Your task to perform on an android device: turn on improve location accuracy Image 0: 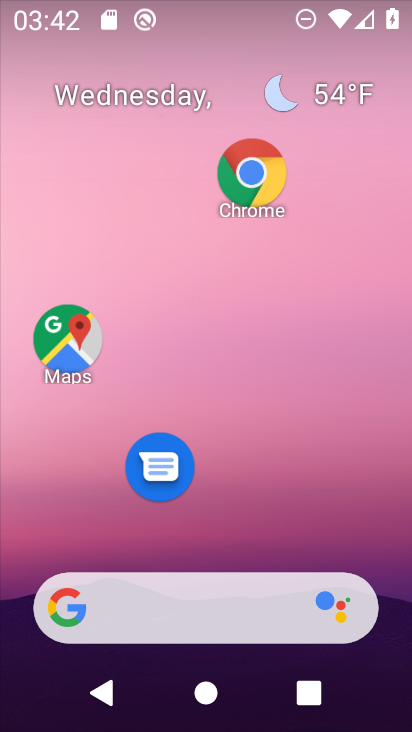
Step 0: drag from (190, 546) to (249, 160)
Your task to perform on an android device: turn on improve location accuracy Image 1: 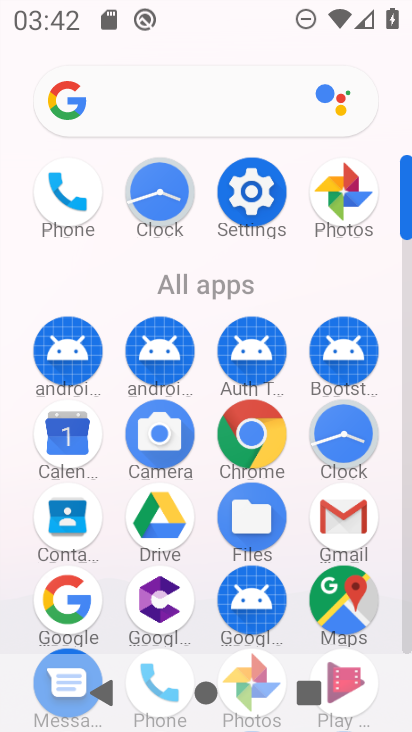
Step 1: click (258, 193)
Your task to perform on an android device: turn on improve location accuracy Image 2: 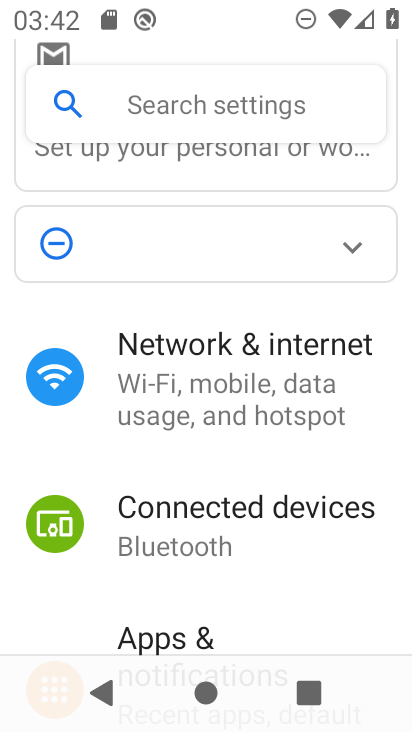
Step 2: drag from (209, 607) to (262, 155)
Your task to perform on an android device: turn on improve location accuracy Image 3: 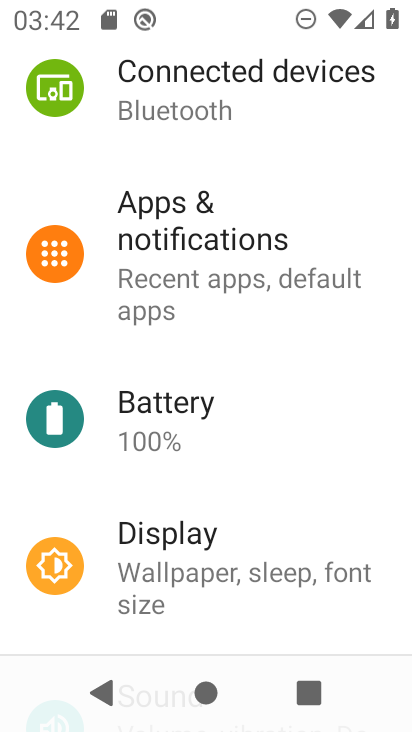
Step 3: drag from (189, 531) to (226, 101)
Your task to perform on an android device: turn on improve location accuracy Image 4: 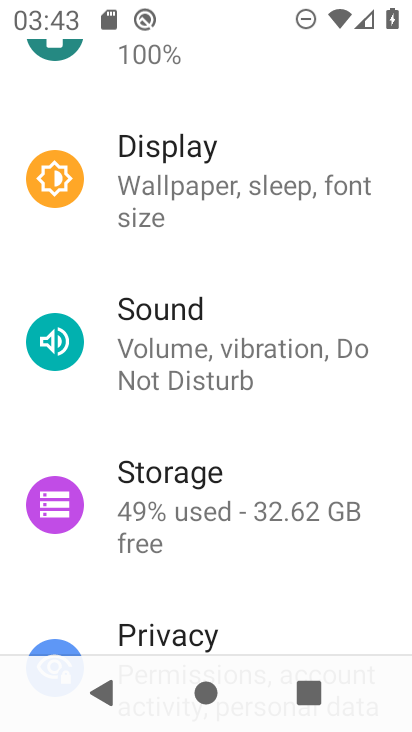
Step 4: drag from (160, 575) to (206, 247)
Your task to perform on an android device: turn on improve location accuracy Image 5: 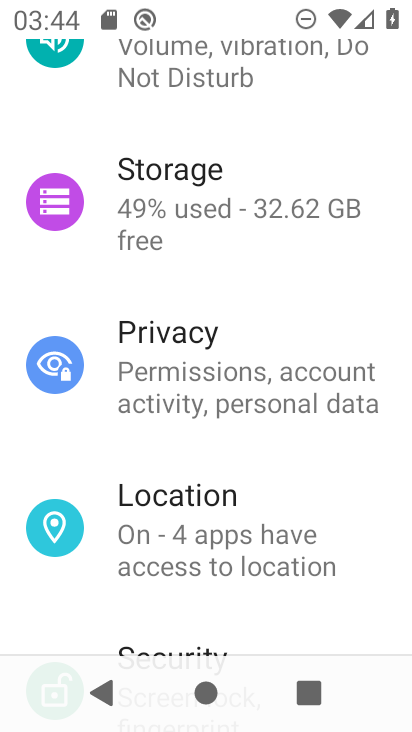
Step 5: click (190, 543)
Your task to perform on an android device: turn on improve location accuracy Image 6: 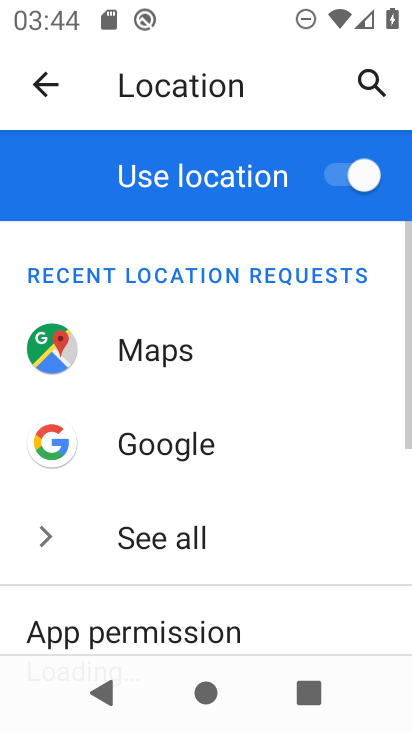
Step 6: drag from (193, 543) to (277, 50)
Your task to perform on an android device: turn on improve location accuracy Image 7: 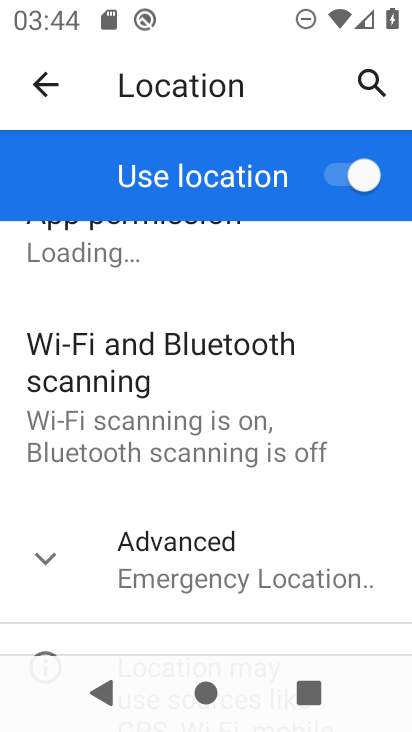
Step 7: click (172, 567)
Your task to perform on an android device: turn on improve location accuracy Image 8: 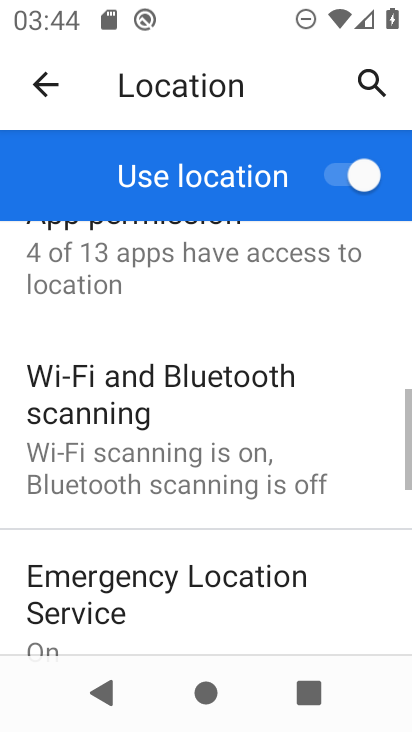
Step 8: drag from (177, 563) to (259, 97)
Your task to perform on an android device: turn on improve location accuracy Image 9: 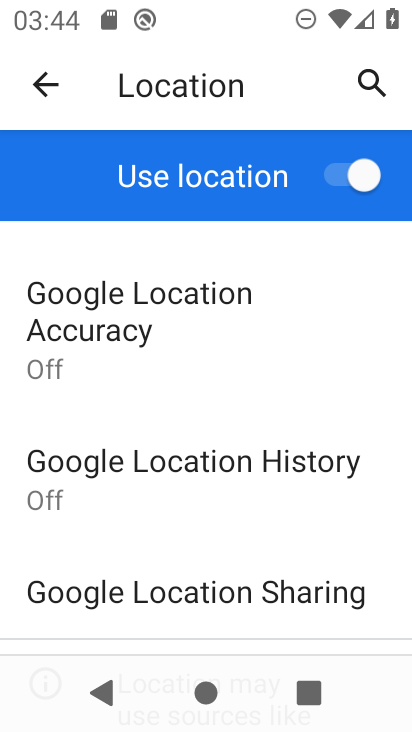
Step 9: click (95, 335)
Your task to perform on an android device: turn on improve location accuracy Image 10: 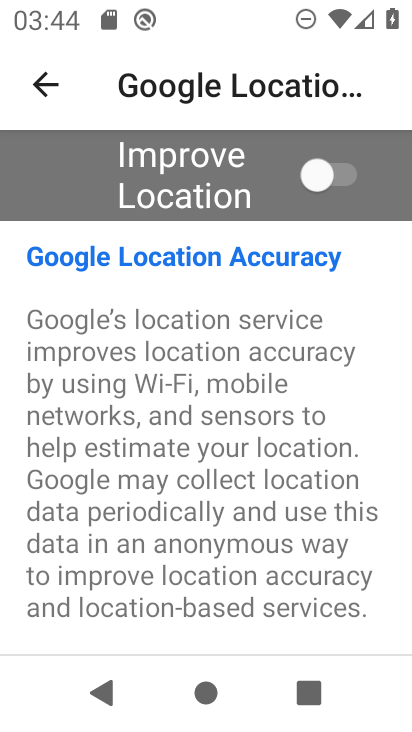
Step 10: click (325, 167)
Your task to perform on an android device: turn on improve location accuracy Image 11: 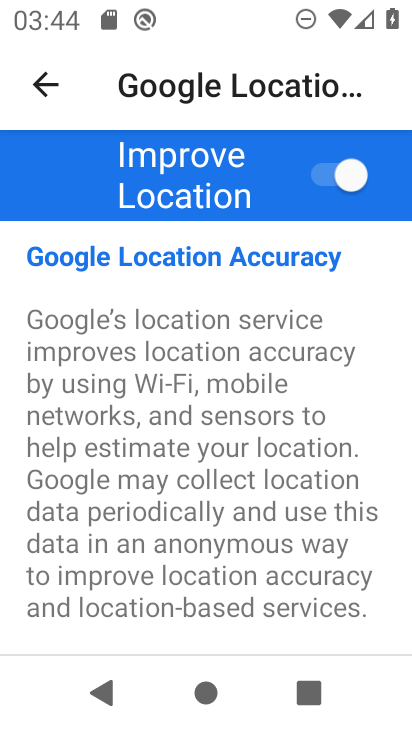
Step 11: task complete